Your task to perform on an android device: allow cookies in the chrome app Image 0: 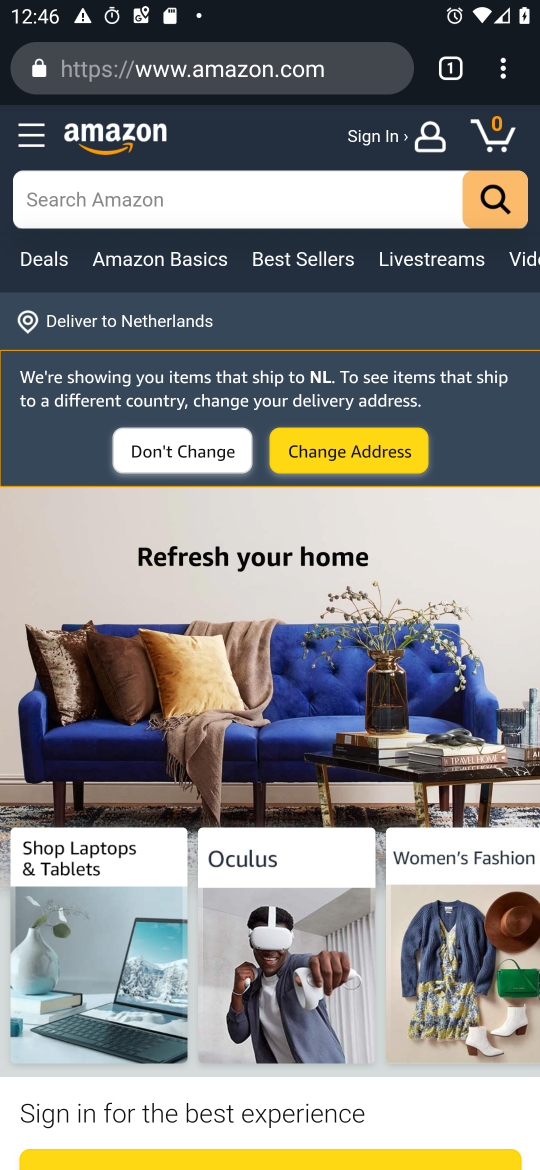
Step 0: click (501, 63)
Your task to perform on an android device: allow cookies in the chrome app Image 1: 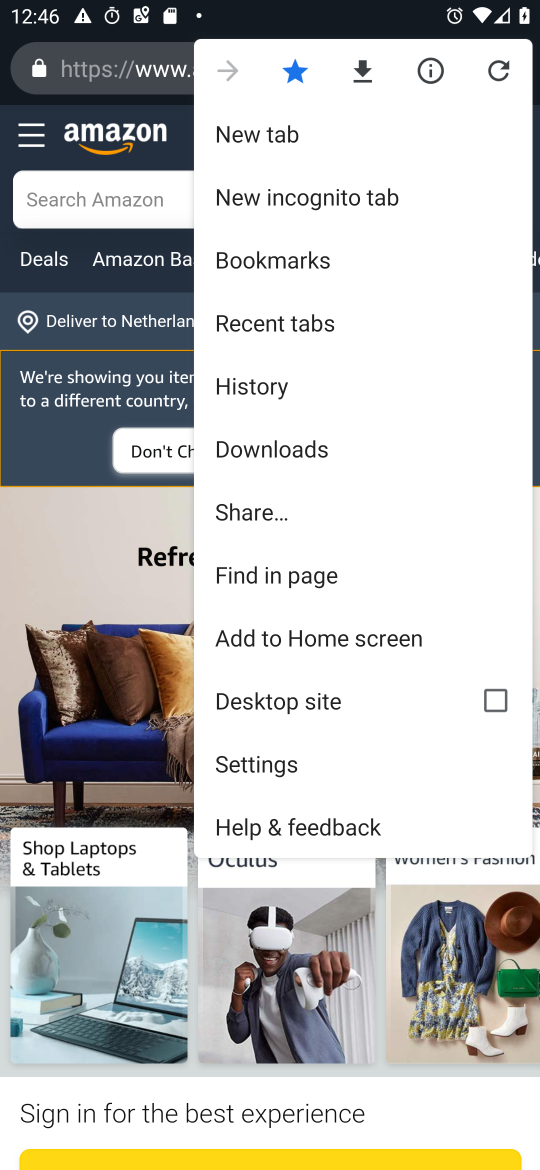
Step 1: click (257, 770)
Your task to perform on an android device: allow cookies in the chrome app Image 2: 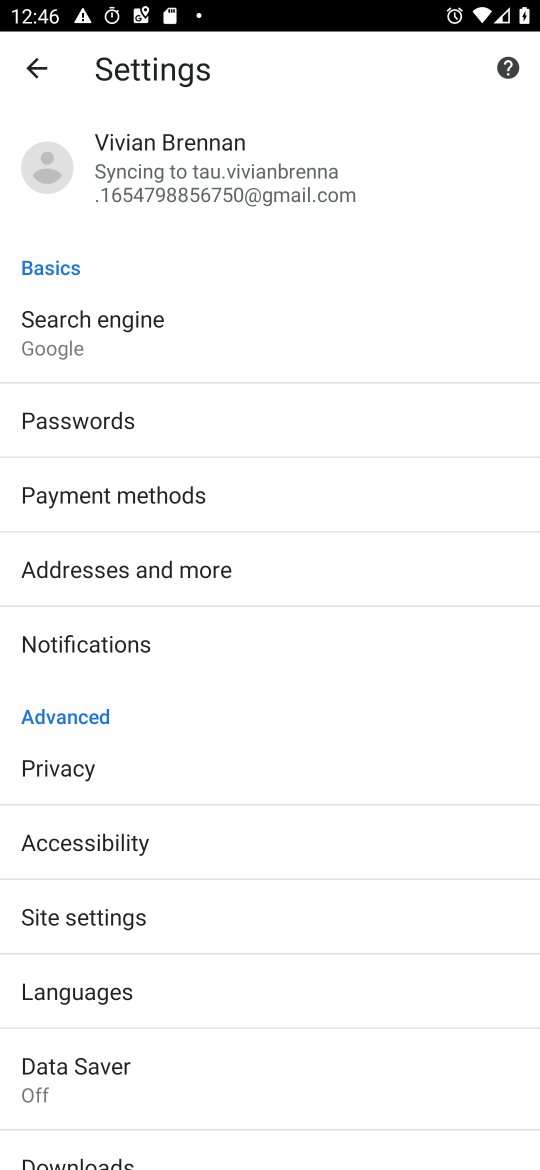
Step 2: click (58, 925)
Your task to perform on an android device: allow cookies in the chrome app Image 3: 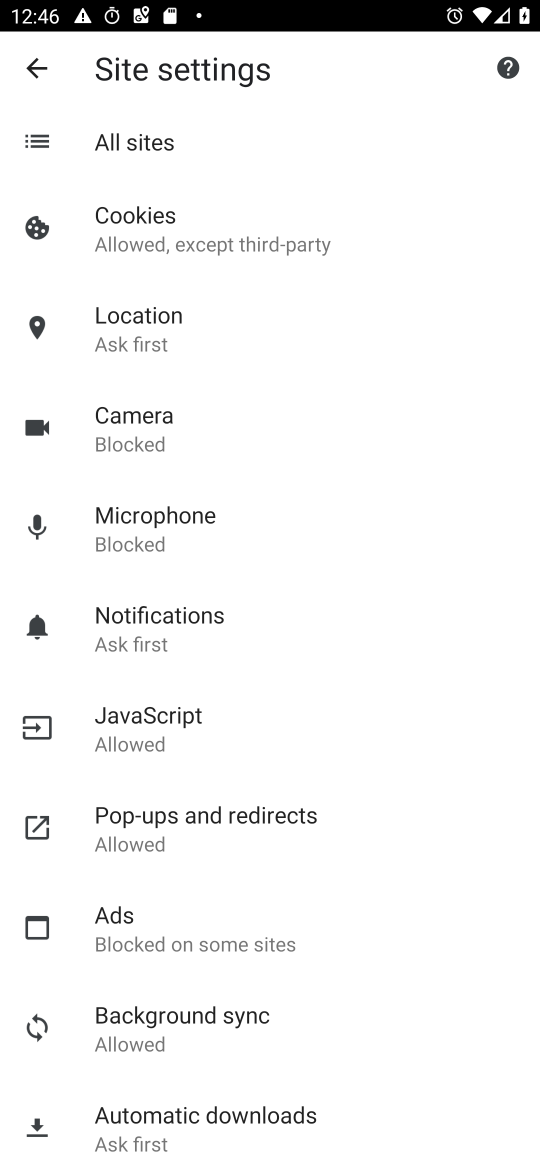
Step 3: click (190, 246)
Your task to perform on an android device: allow cookies in the chrome app Image 4: 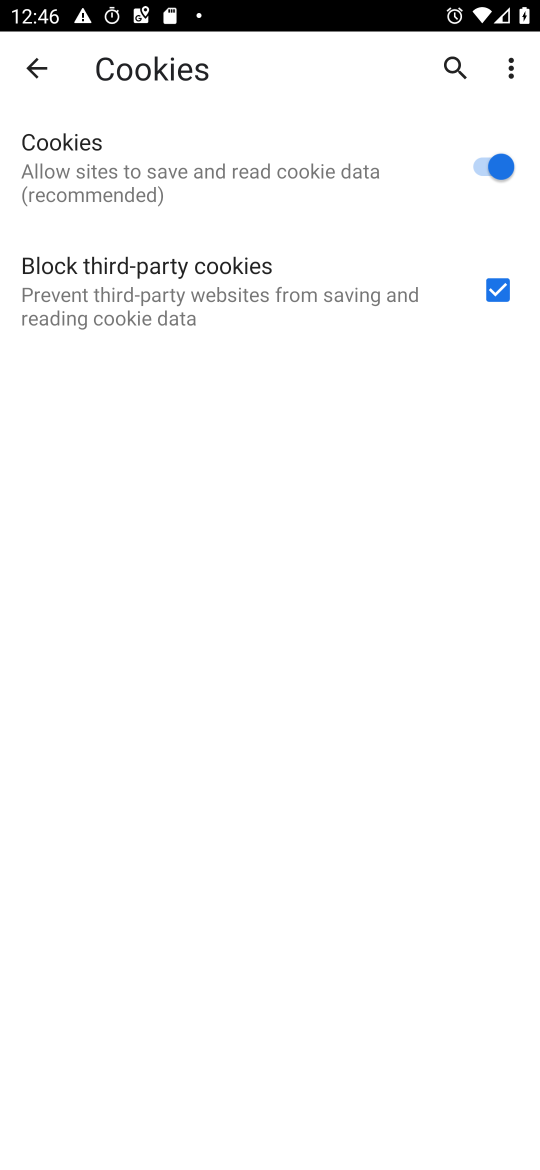
Step 4: task complete